Your task to perform on an android device: stop showing notifications on the lock screen Image 0: 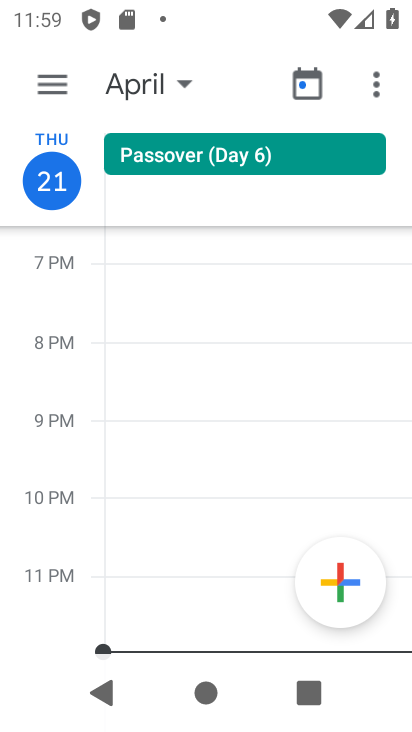
Step 0: press home button
Your task to perform on an android device: stop showing notifications on the lock screen Image 1: 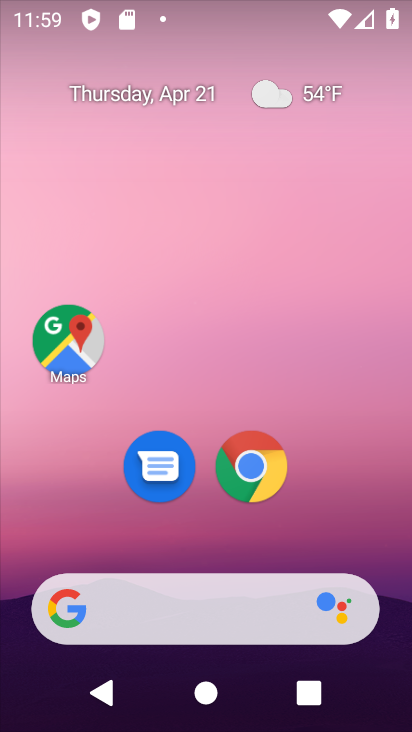
Step 1: drag from (351, 487) to (242, 67)
Your task to perform on an android device: stop showing notifications on the lock screen Image 2: 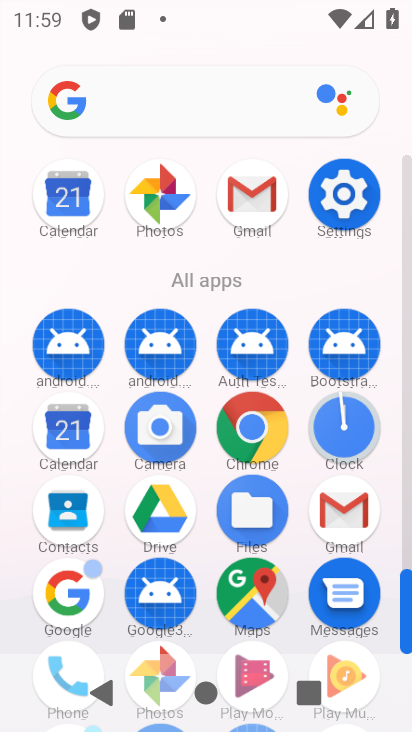
Step 2: click (342, 179)
Your task to perform on an android device: stop showing notifications on the lock screen Image 3: 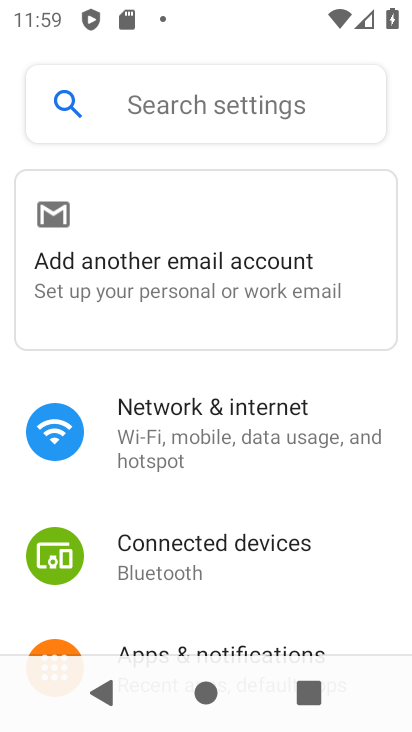
Step 3: click (194, 646)
Your task to perform on an android device: stop showing notifications on the lock screen Image 4: 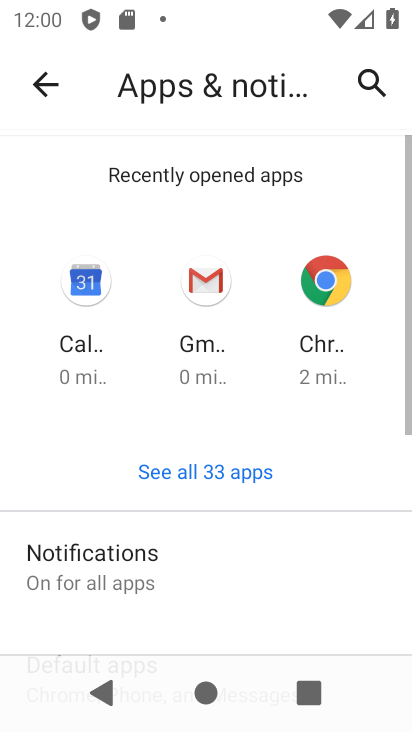
Step 4: click (133, 580)
Your task to perform on an android device: stop showing notifications on the lock screen Image 5: 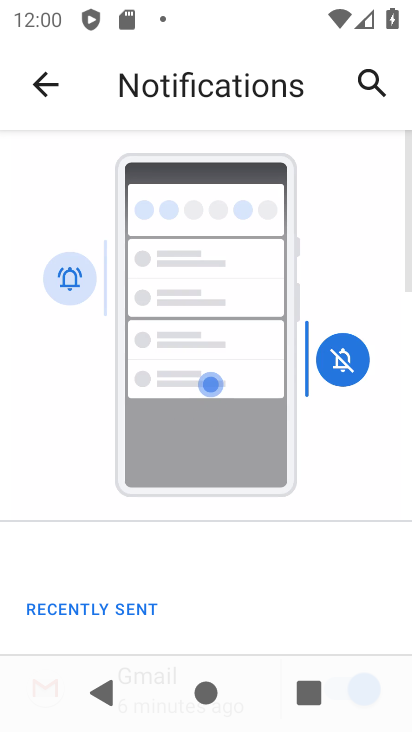
Step 5: drag from (227, 612) to (212, 206)
Your task to perform on an android device: stop showing notifications on the lock screen Image 6: 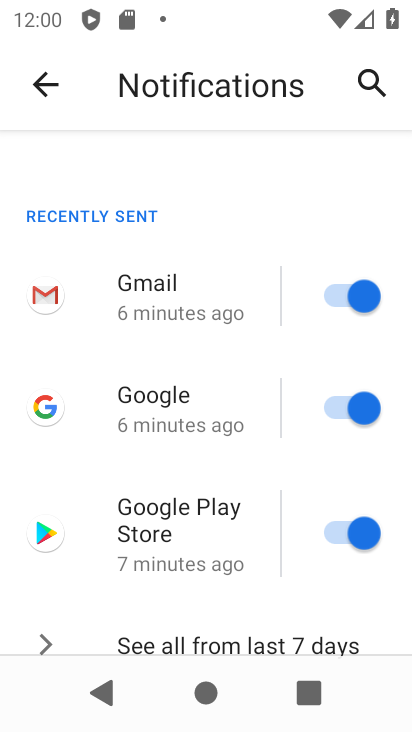
Step 6: drag from (174, 585) to (158, 162)
Your task to perform on an android device: stop showing notifications on the lock screen Image 7: 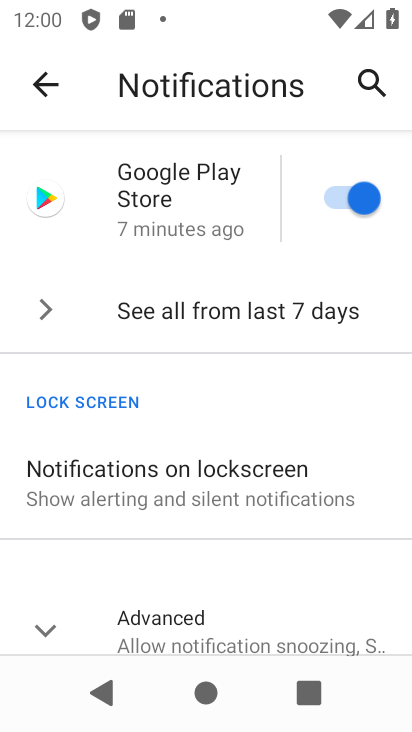
Step 7: click (161, 479)
Your task to perform on an android device: stop showing notifications on the lock screen Image 8: 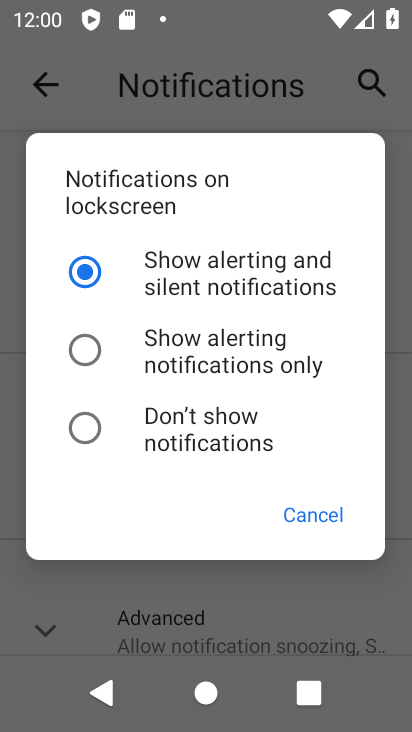
Step 8: click (176, 430)
Your task to perform on an android device: stop showing notifications on the lock screen Image 9: 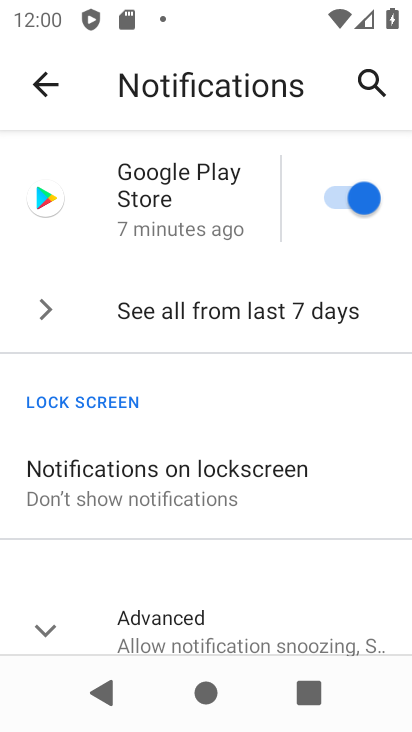
Step 9: task complete